Your task to perform on an android device: toggle pop-ups in chrome Image 0: 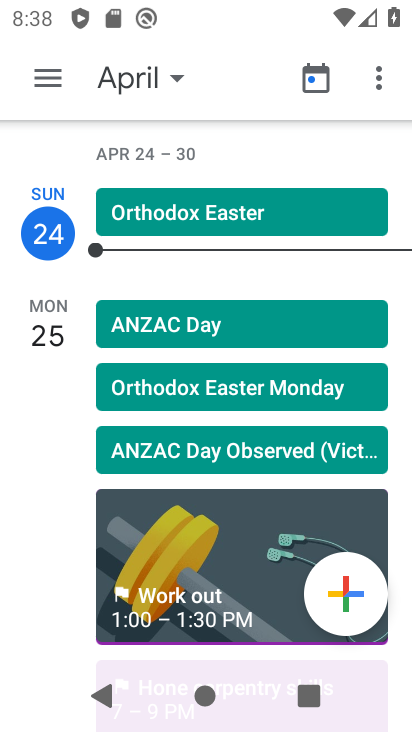
Step 0: press home button
Your task to perform on an android device: toggle pop-ups in chrome Image 1: 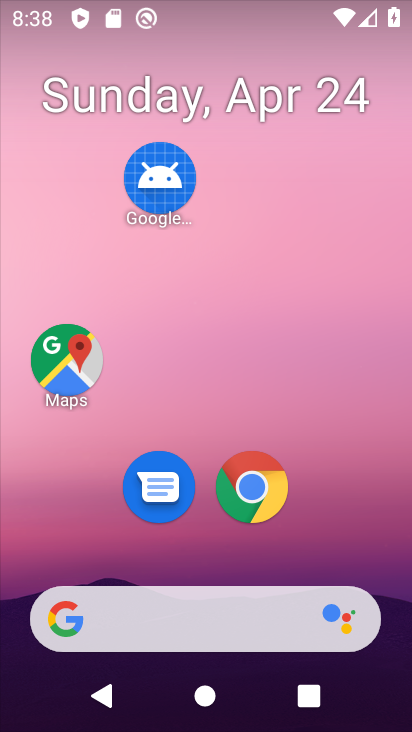
Step 1: click (262, 486)
Your task to perform on an android device: toggle pop-ups in chrome Image 2: 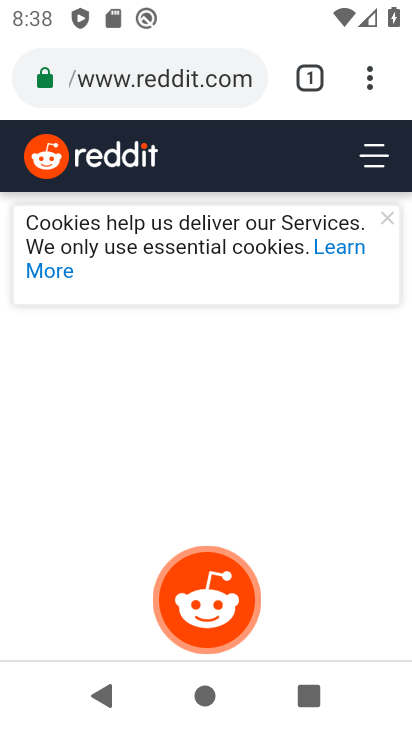
Step 2: drag from (367, 80) to (155, 540)
Your task to perform on an android device: toggle pop-ups in chrome Image 3: 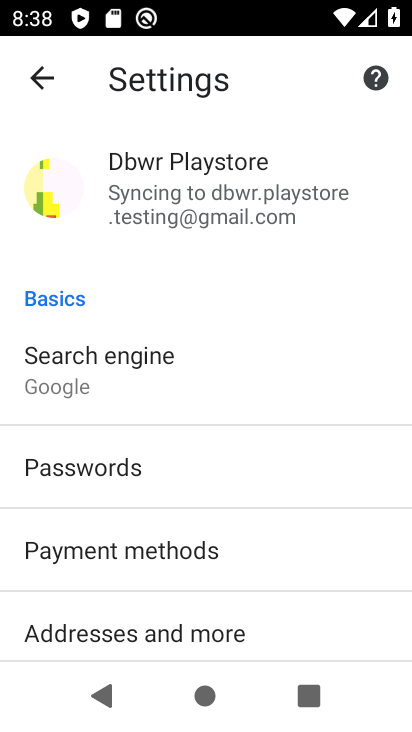
Step 3: drag from (293, 620) to (293, 233)
Your task to perform on an android device: toggle pop-ups in chrome Image 4: 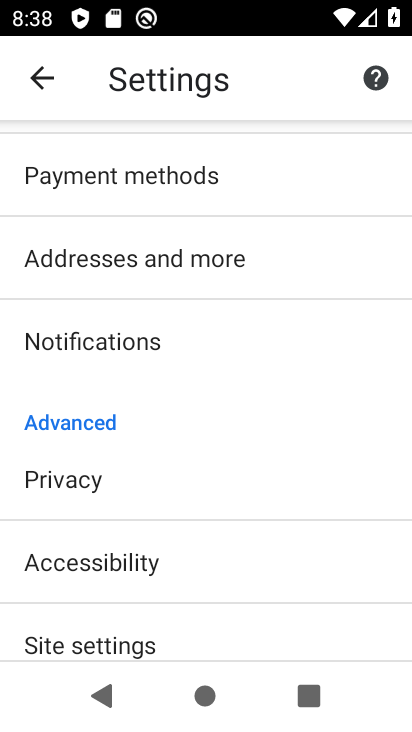
Step 4: click (90, 644)
Your task to perform on an android device: toggle pop-ups in chrome Image 5: 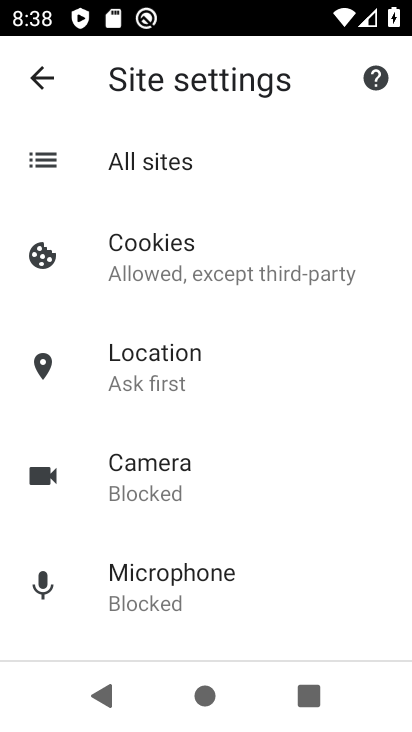
Step 5: drag from (361, 620) to (329, 158)
Your task to perform on an android device: toggle pop-ups in chrome Image 6: 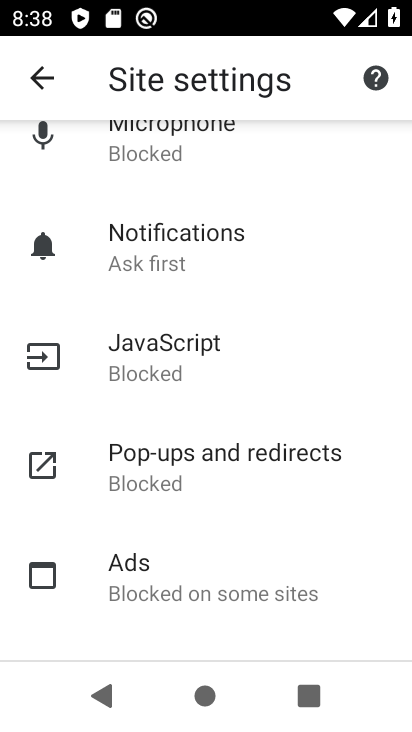
Step 6: click (163, 460)
Your task to perform on an android device: toggle pop-ups in chrome Image 7: 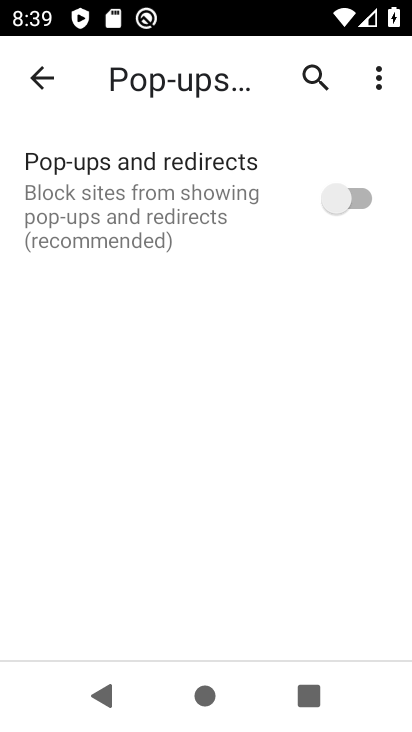
Step 7: click (347, 197)
Your task to perform on an android device: toggle pop-ups in chrome Image 8: 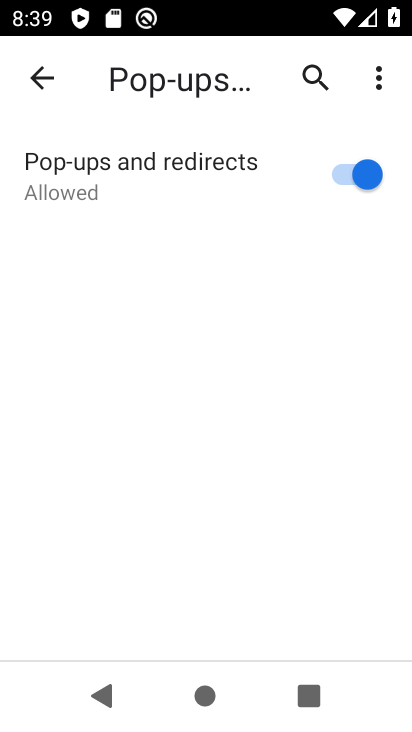
Step 8: task complete